Your task to perform on an android device: find which apps use the phone's location Image 0: 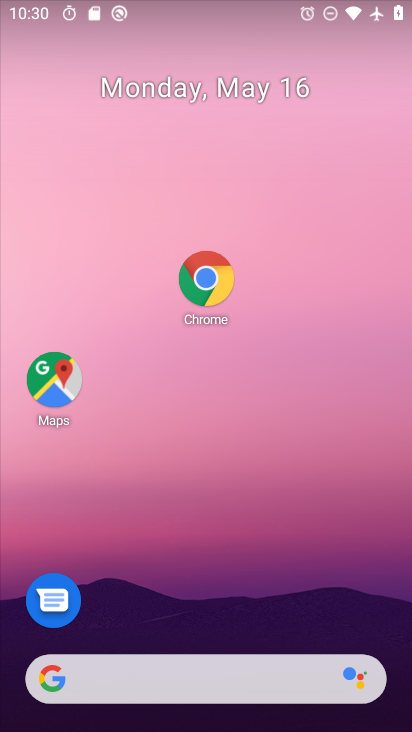
Step 0: press home button
Your task to perform on an android device: find which apps use the phone's location Image 1: 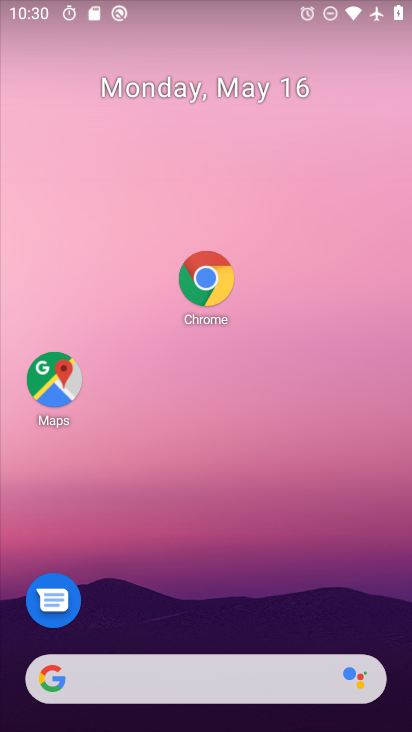
Step 1: drag from (218, 673) to (350, 172)
Your task to perform on an android device: find which apps use the phone's location Image 2: 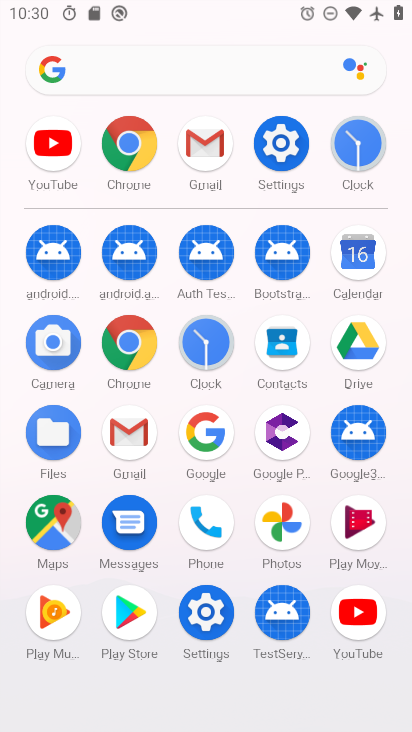
Step 2: click (272, 149)
Your task to perform on an android device: find which apps use the phone's location Image 3: 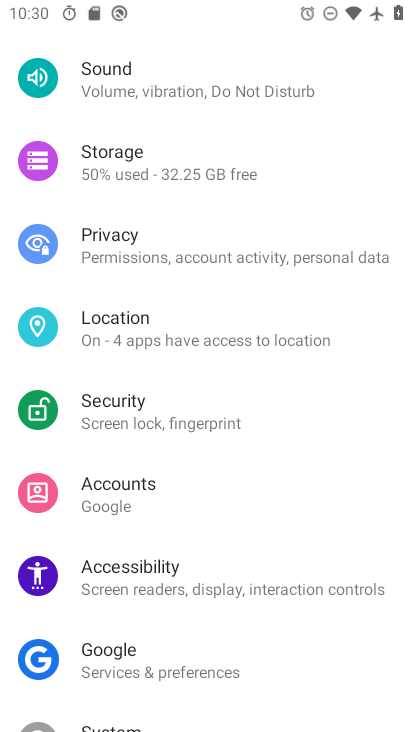
Step 3: click (163, 337)
Your task to perform on an android device: find which apps use the phone's location Image 4: 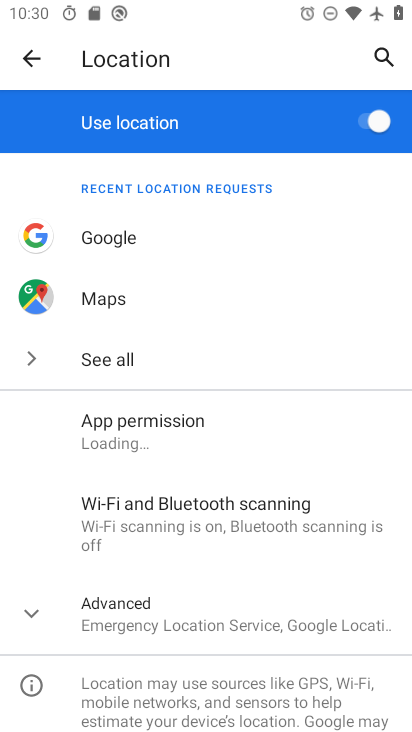
Step 4: drag from (245, 539) to (233, 499)
Your task to perform on an android device: find which apps use the phone's location Image 5: 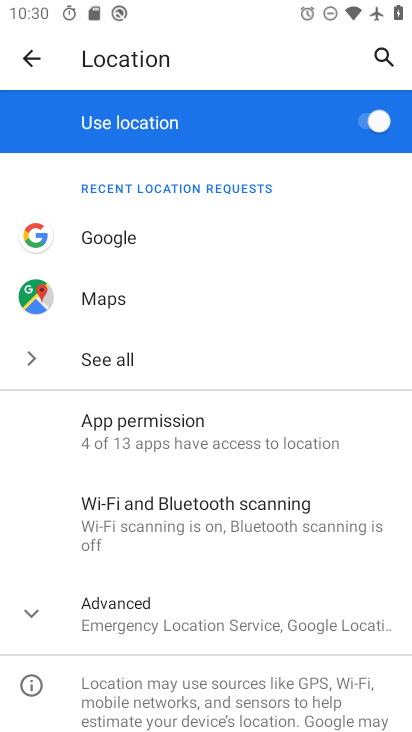
Step 5: click (153, 418)
Your task to perform on an android device: find which apps use the phone's location Image 6: 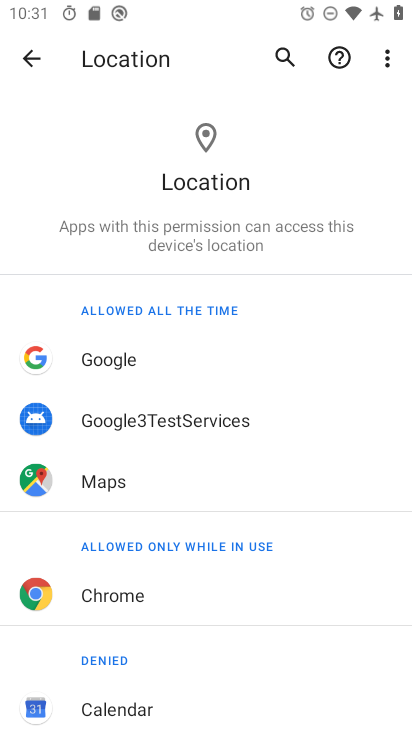
Step 6: drag from (180, 689) to (326, 199)
Your task to perform on an android device: find which apps use the phone's location Image 7: 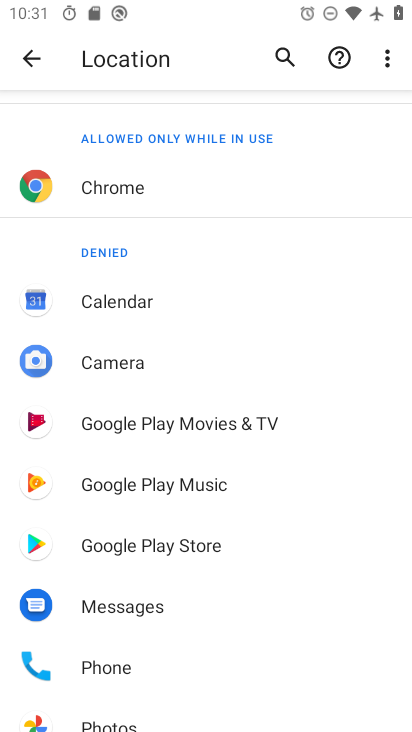
Step 7: click (108, 669)
Your task to perform on an android device: find which apps use the phone's location Image 8: 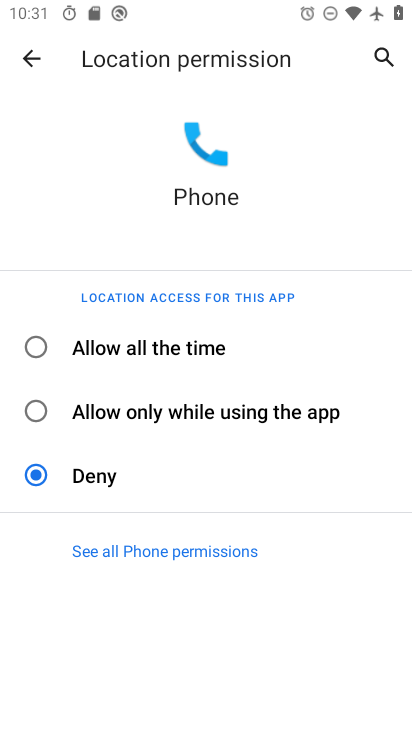
Step 8: task complete